Your task to perform on an android device: turn on showing notifications on the lock screen Image 0: 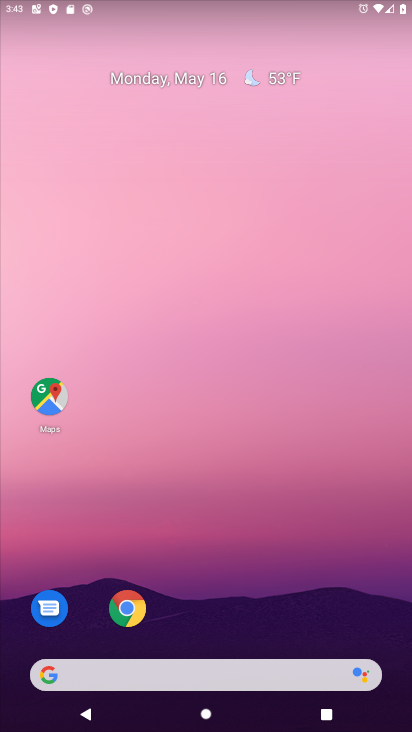
Step 0: drag from (241, 609) to (224, 218)
Your task to perform on an android device: turn on showing notifications on the lock screen Image 1: 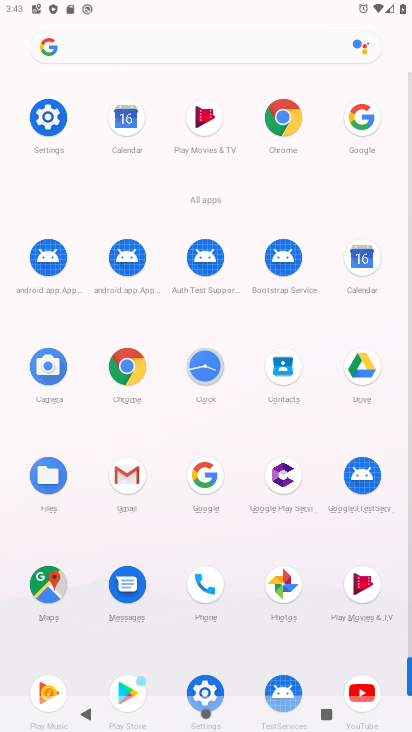
Step 1: click (48, 117)
Your task to perform on an android device: turn on showing notifications on the lock screen Image 2: 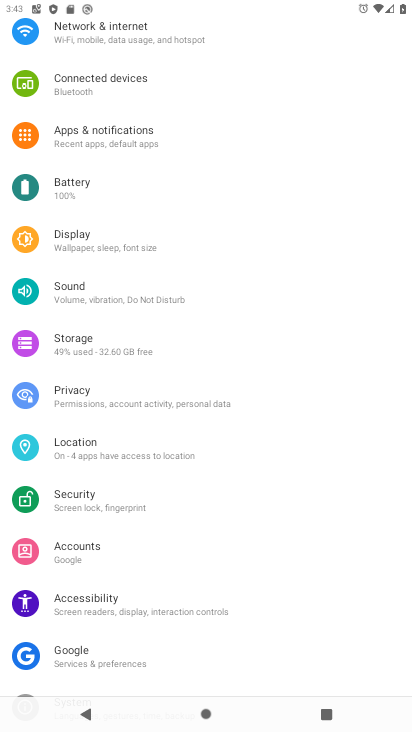
Step 2: click (113, 138)
Your task to perform on an android device: turn on showing notifications on the lock screen Image 3: 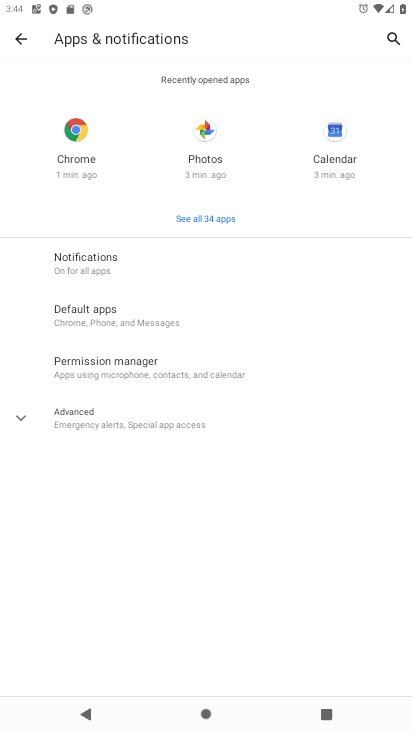
Step 3: click (87, 267)
Your task to perform on an android device: turn on showing notifications on the lock screen Image 4: 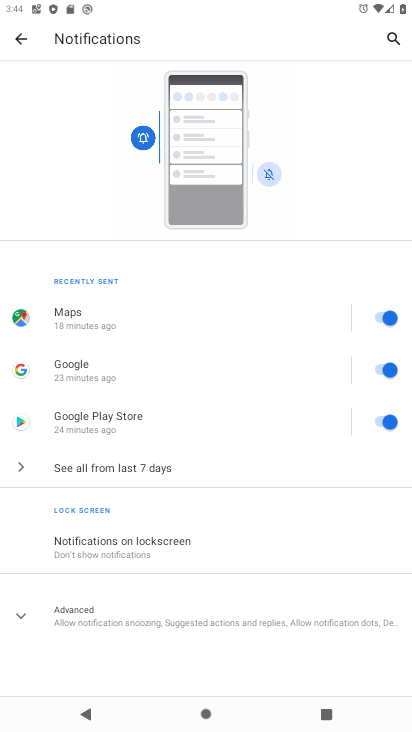
Step 4: click (111, 545)
Your task to perform on an android device: turn on showing notifications on the lock screen Image 5: 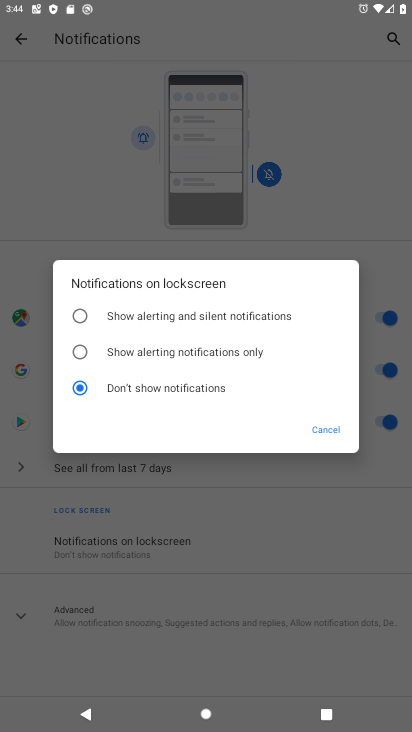
Step 5: click (78, 321)
Your task to perform on an android device: turn on showing notifications on the lock screen Image 6: 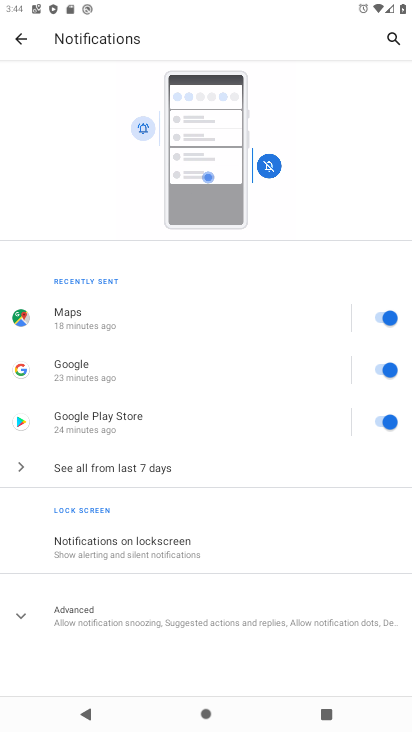
Step 6: task complete